Your task to perform on an android device: set default search engine in the chrome app Image 0: 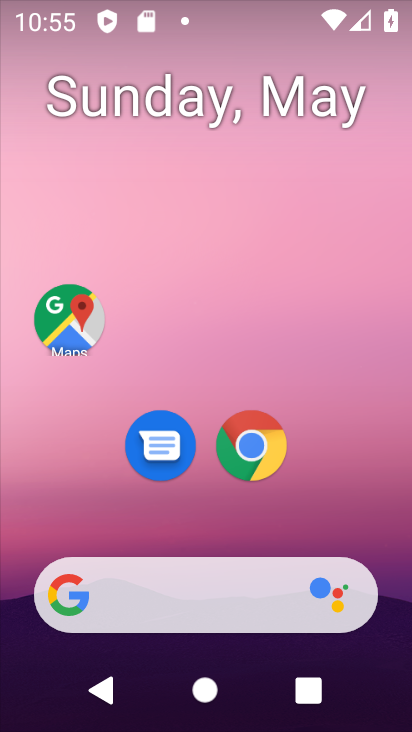
Step 0: click (252, 445)
Your task to perform on an android device: set default search engine in the chrome app Image 1: 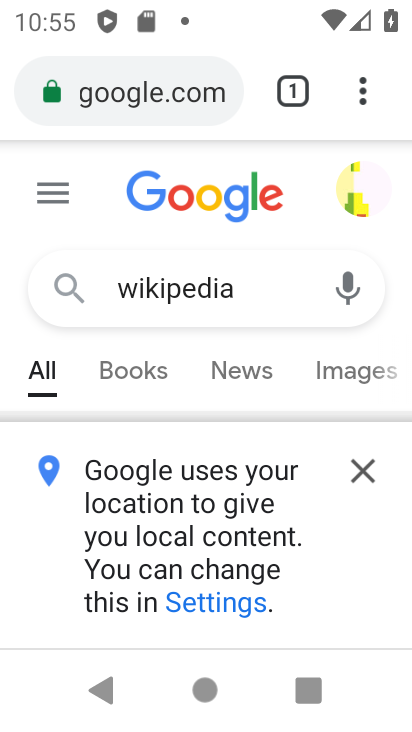
Step 1: click (363, 88)
Your task to perform on an android device: set default search engine in the chrome app Image 2: 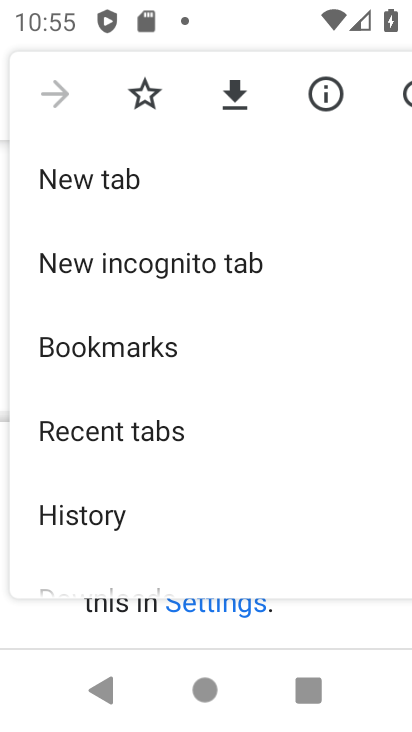
Step 2: drag from (70, 537) to (173, 210)
Your task to perform on an android device: set default search engine in the chrome app Image 3: 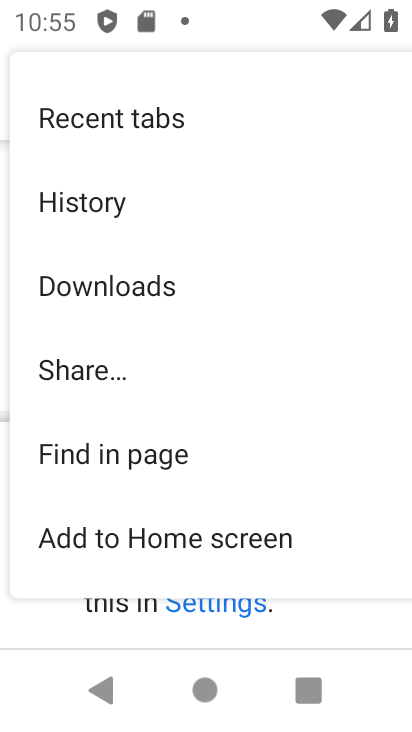
Step 3: drag from (98, 532) to (175, 208)
Your task to perform on an android device: set default search engine in the chrome app Image 4: 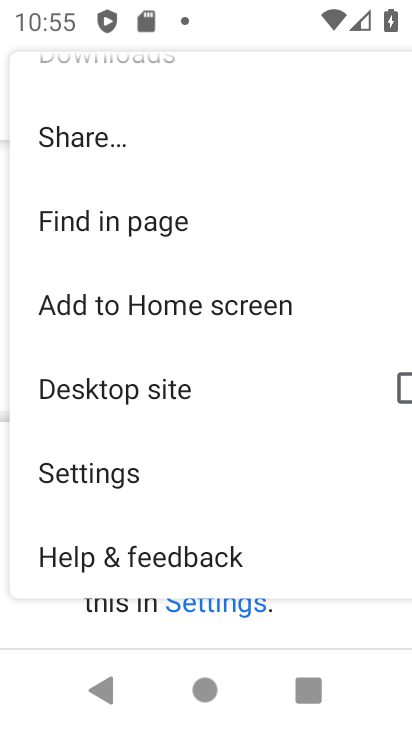
Step 4: click (90, 474)
Your task to perform on an android device: set default search engine in the chrome app Image 5: 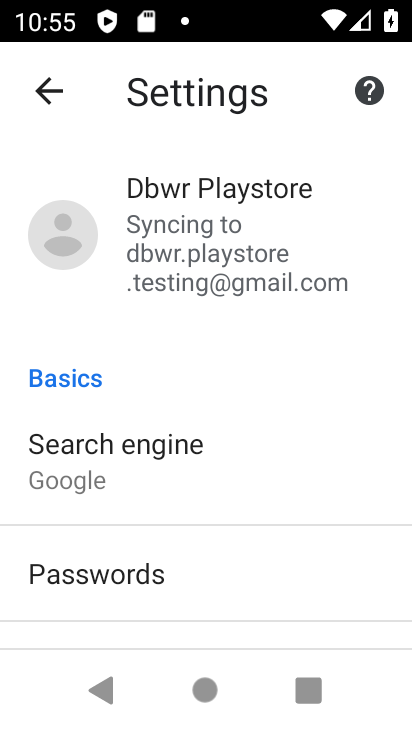
Step 5: click (156, 460)
Your task to perform on an android device: set default search engine in the chrome app Image 6: 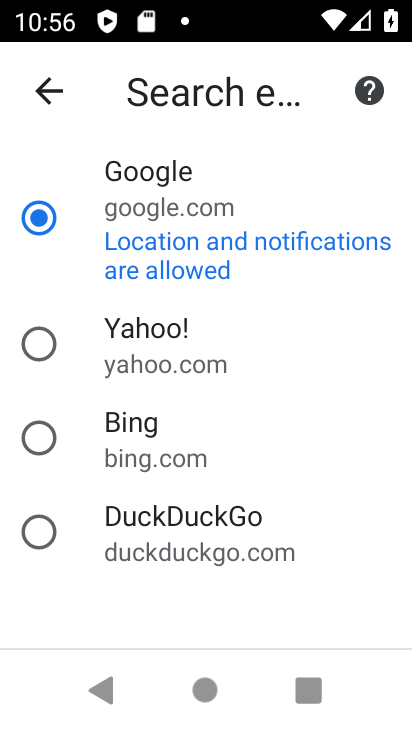
Step 6: task complete